Your task to perform on an android device: Go to Maps Image 0: 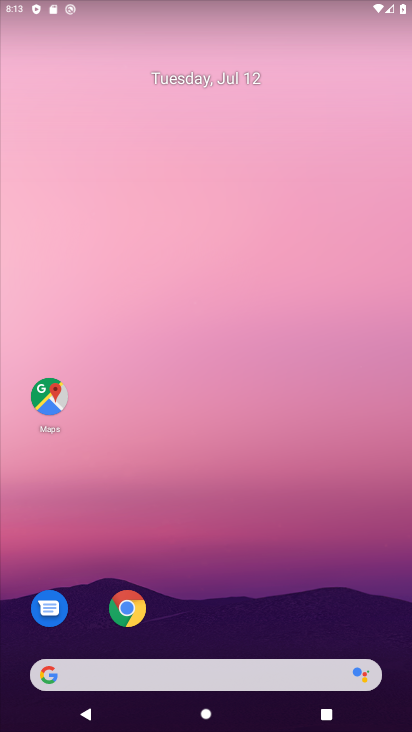
Step 0: click (41, 398)
Your task to perform on an android device: Go to Maps Image 1: 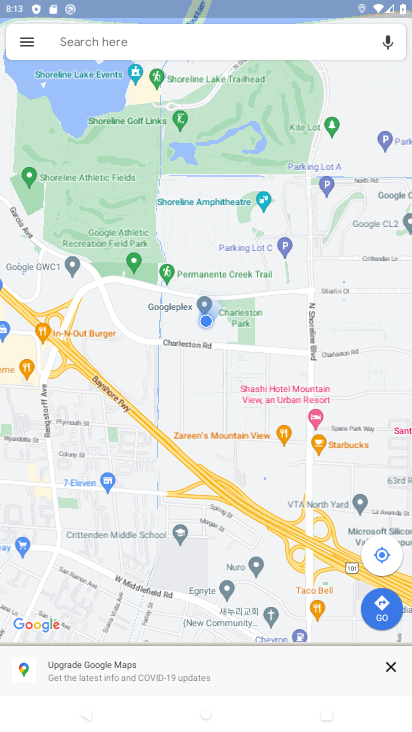
Step 1: task complete